Your task to perform on an android device: Toggle the flashlight Image 0: 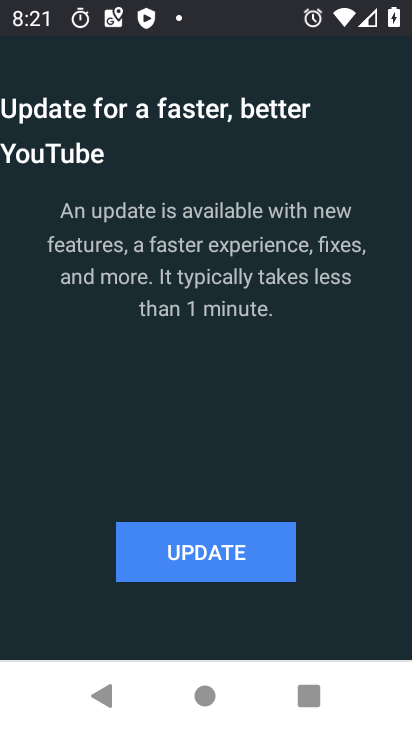
Step 0: press home button
Your task to perform on an android device: Toggle the flashlight Image 1: 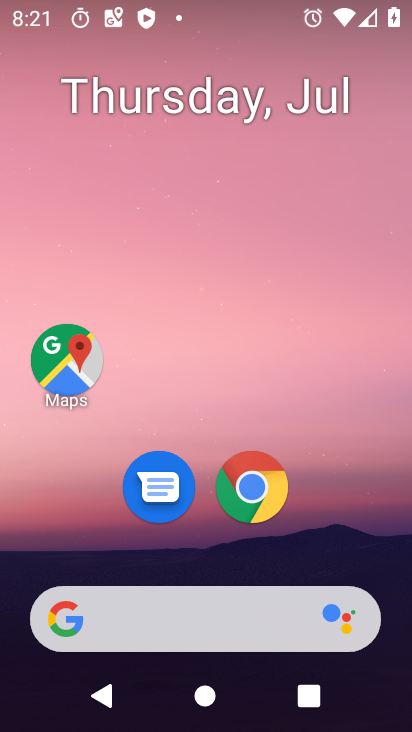
Step 1: task complete